Your task to perform on an android device: Open the phone app and click the voicemail tab. Image 0: 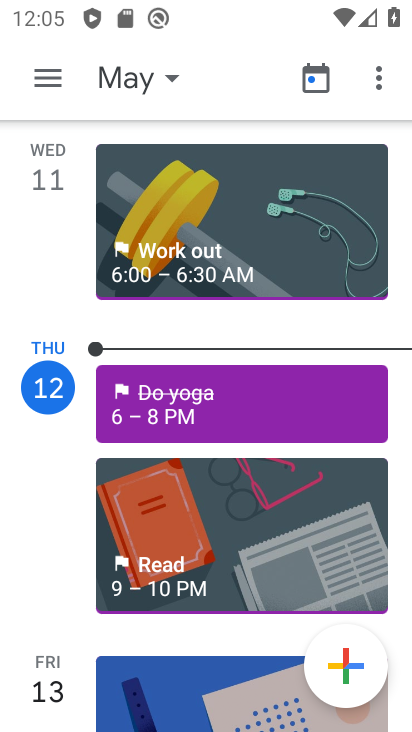
Step 0: press home button
Your task to perform on an android device: Open the phone app and click the voicemail tab. Image 1: 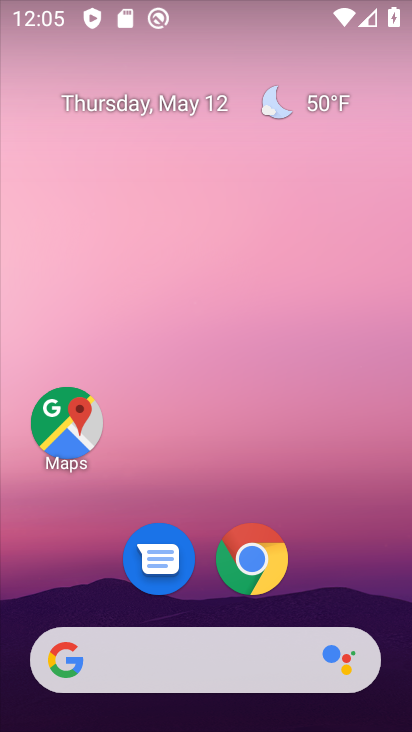
Step 1: drag from (287, 616) to (258, 271)
Your task to perform on an android device: Open the phone app and click the voicemail tab. Image 2: 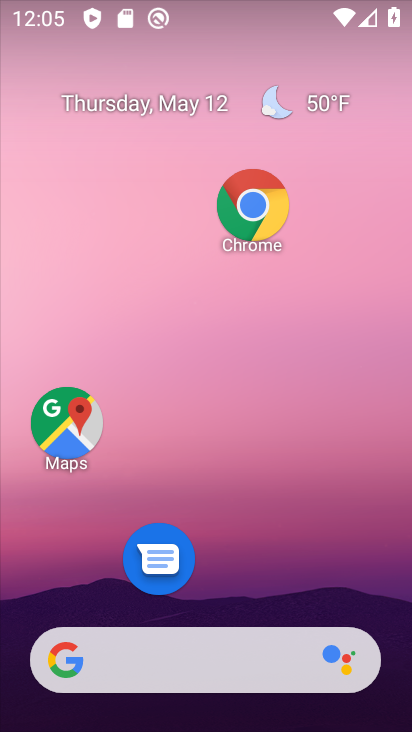
Step 2: click (281, 181)
Your task to perform on an android device: Open the phone app and click the voicemail tab. Image 3: 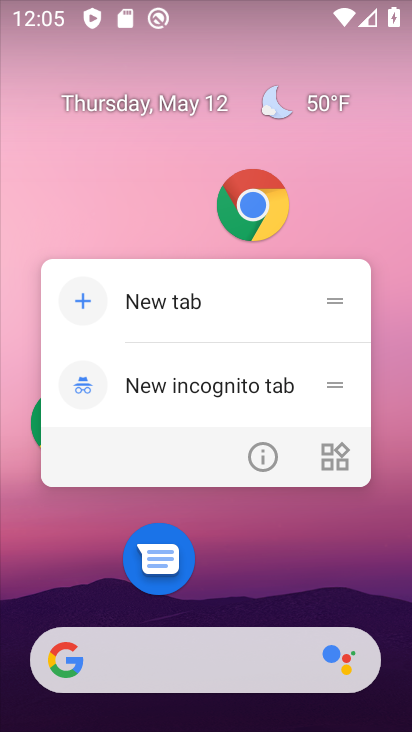
Step 3: drag from (264, 579) to (255, 216)
Your task to perform on an android device: Open the phone app and click the voicemail tab. Image 4: 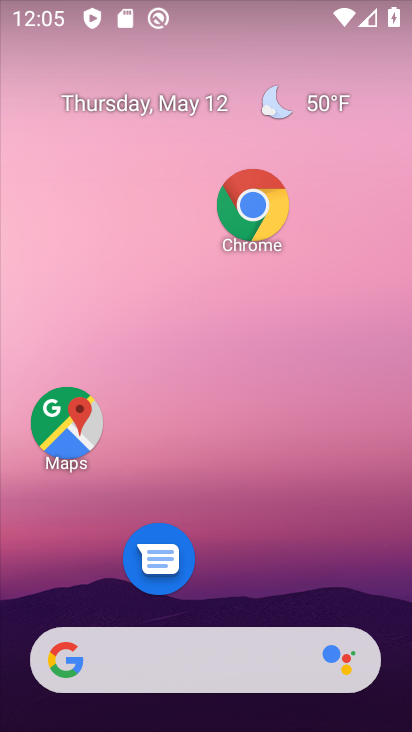
Step 4: drag from (217, 587) to (198, 140)
Your task to perform on an android device: Open the phone app and click the voicemail tab. Image 5: 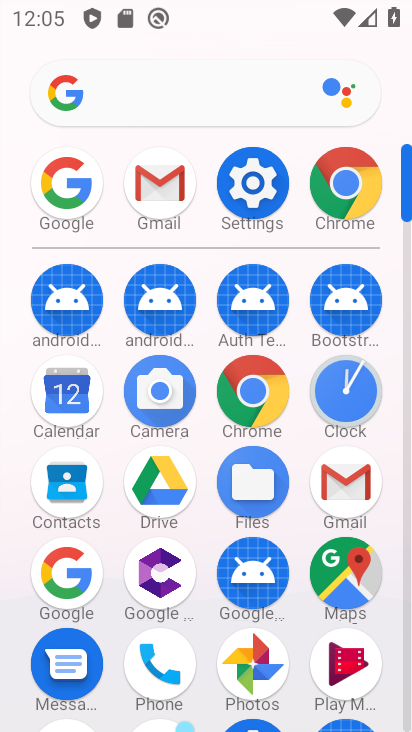
Step 5: click (144, 664)
Your task to perform on an android device: Open the phone app and click the voicemail tab. Image 6: 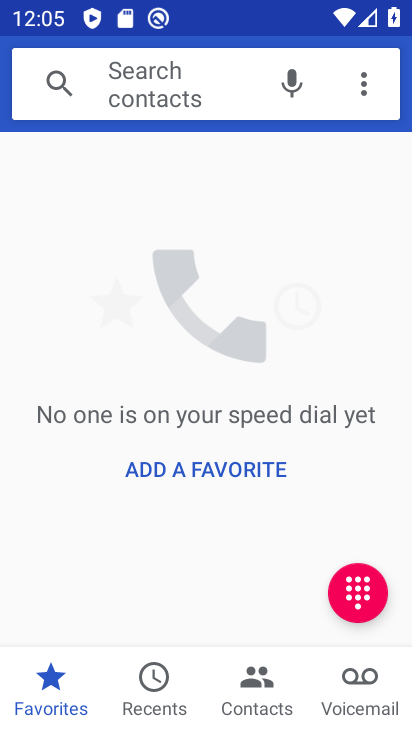
Step 6: click (366, 694)
Your task to perform on an android device: Open the phone app and click the voicemail tab. Image 7: 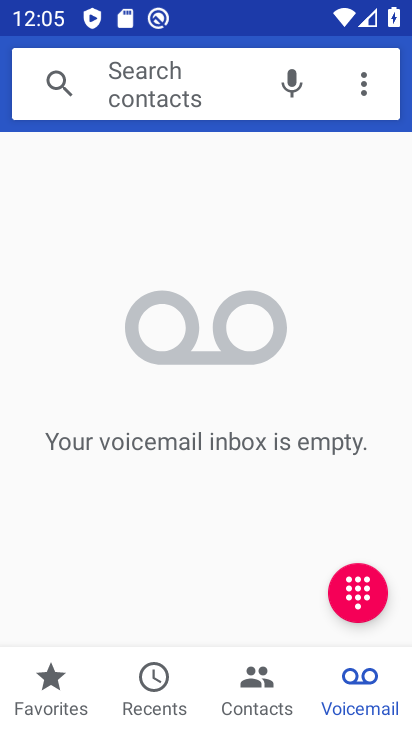
Step 7: task complete